Your task to perform on an android device: open a bookmark in the chrome app Image 0: 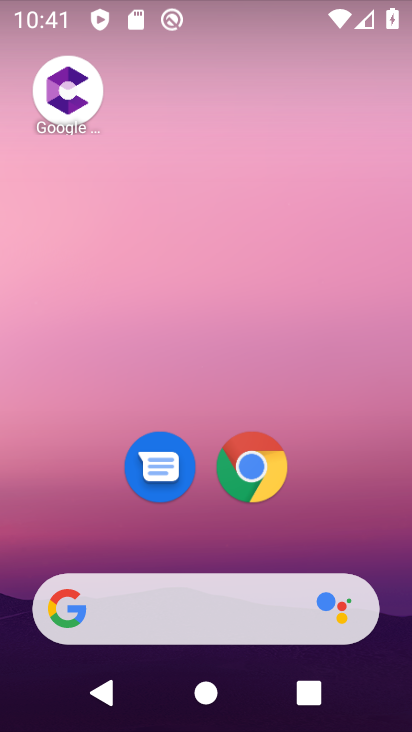
Step 0: click (251, 469)
Your task to perform on an android device: open a bookmark in the chrome app Image 1: 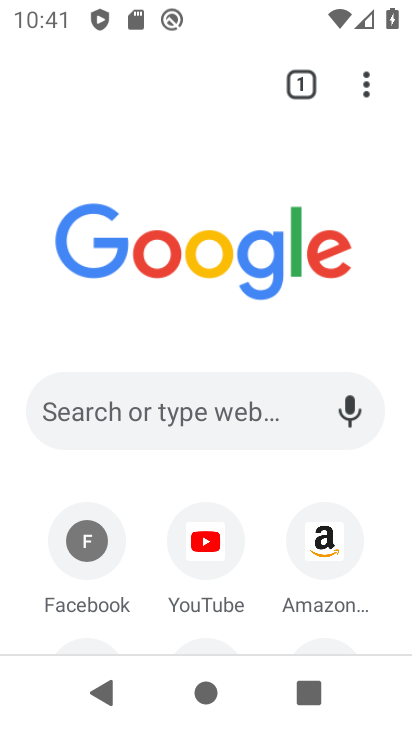
Step 1: click (358, 93)
Your task to perform on an android device: open a bookmark in the chrome app Image 2: 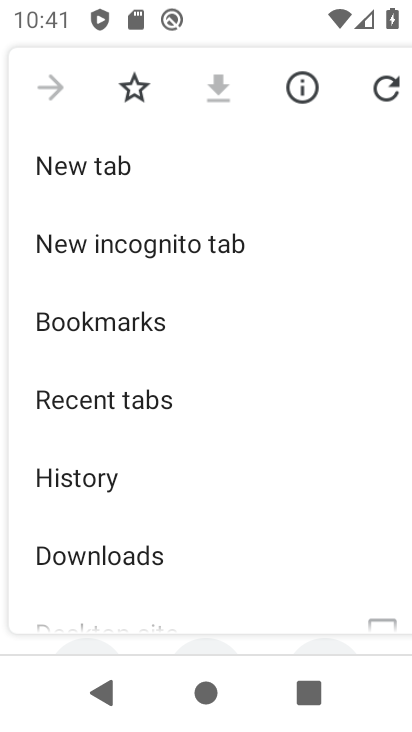
Step 2: click (96, 326)
Your task to perform on an android device: open a bookmark in the chrome app Image 3: 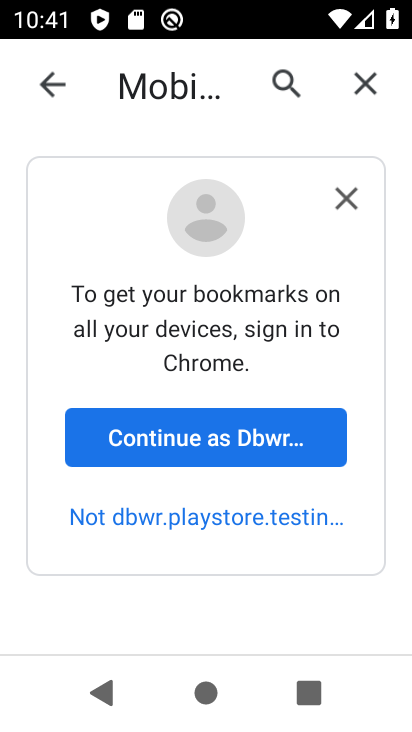
Step 3: click (180, 461)
Your task to perform on an android device: open a bookmark in the chrome app Image 4: 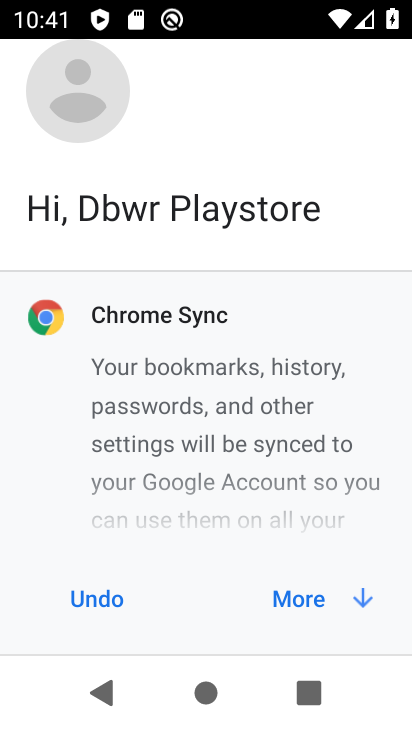
Step 4: click (283, 605)
Your task to perform on an android device: open a bookmark in the chrome app Image 5: 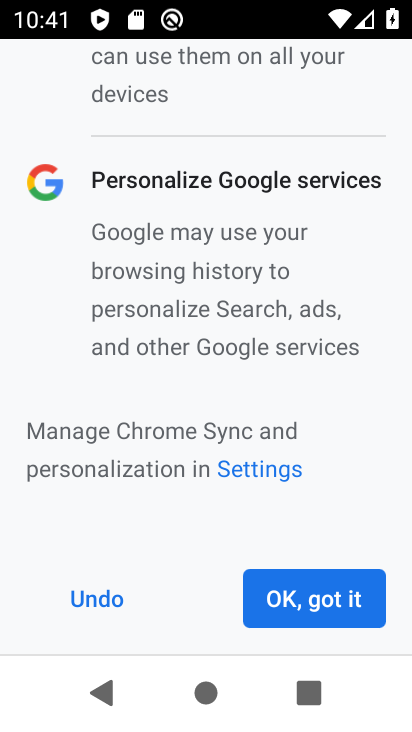
Step 5: click (281, 596)
Your task to perform on an android device: open a bookmark in the chrome app Image 6: 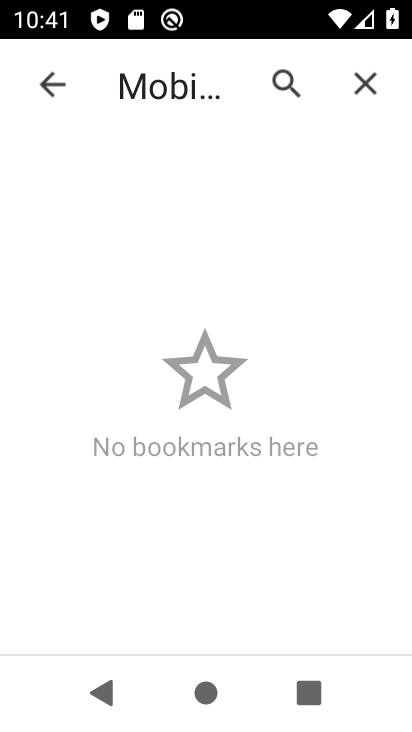
Step 6: task complete